Your task to perform on an android device: install app "LinkedIn" Image 0: 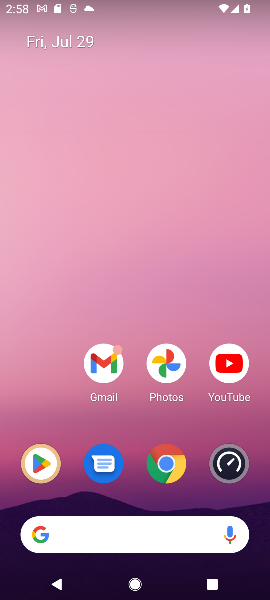
Step 0: drag from (92, 538) to (239, 0)
Your task to perform on an android device: install app "LinkedIn" Image 1: 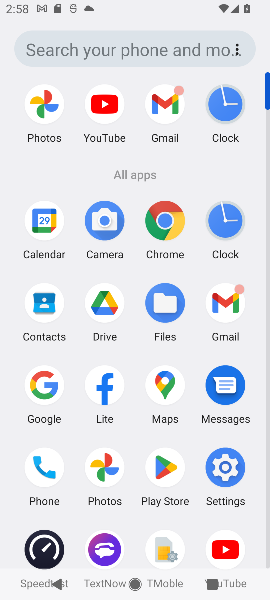
Step 1: click (163, 469)
Your task to perform on an android device: install app "LinkedIn" Image 2: 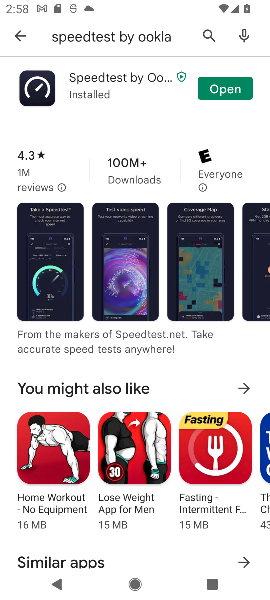
Step 2: click (207, 35)
Your task to perform on an android device: install app "LinkedIn" Image 3: 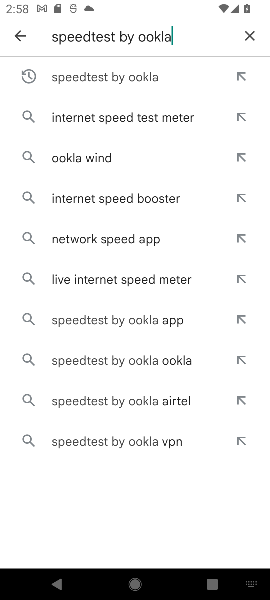
Step 3: click (248, 34)
Your task to perform on an android device: install app "LinkedIn" Image 4: 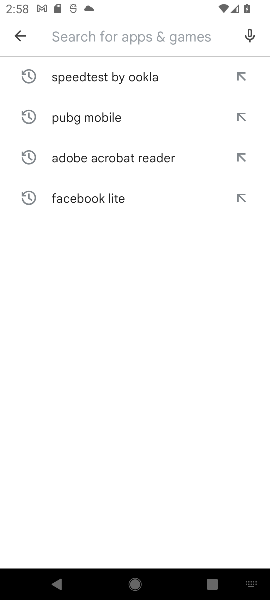
Step 4: type "LinkedIn"
Your task to perform on an android device: install app "LinkedIn" Image 5: 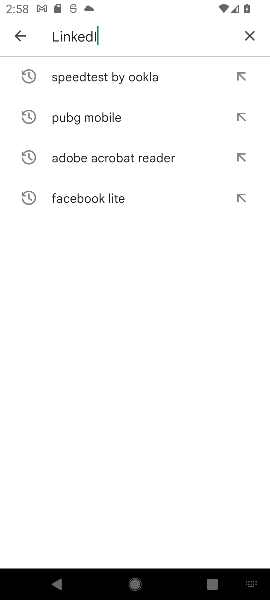
Step 5: type ""
Your task to perform on an android device: install app "LinkedIn" Image 6: 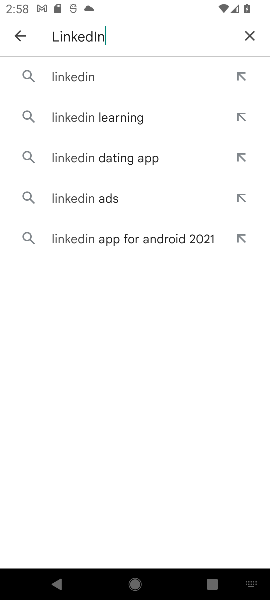
Step 6: click (77, 76)
Your task to perform on an android device: install app "LinkedIn" Image 7: 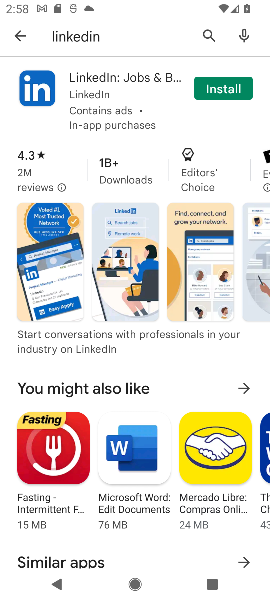
Step 7: click (222, 91)
Your task to perform on an android device: install app "LinkedIn" Image 8: 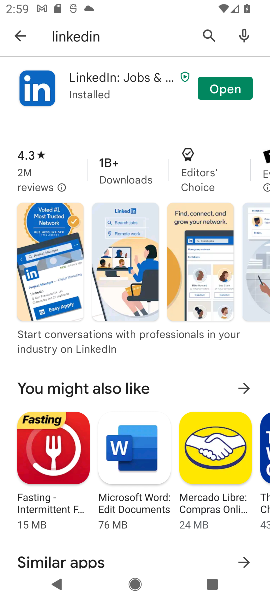
Step 8: task complete